Your task to perform on an android device: Show me some nice wallpapers for my laptop Image 0: 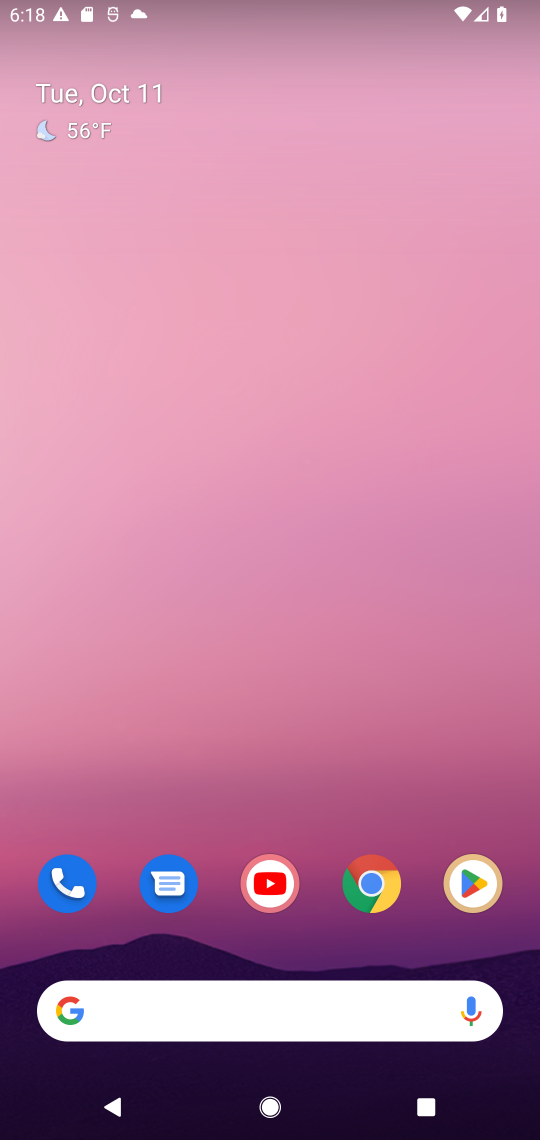
Step 0: drag from (329, 943) to (104, 30)
Your task to perform on an android device: Show me some nice wallpapers for my laptop Image 1: 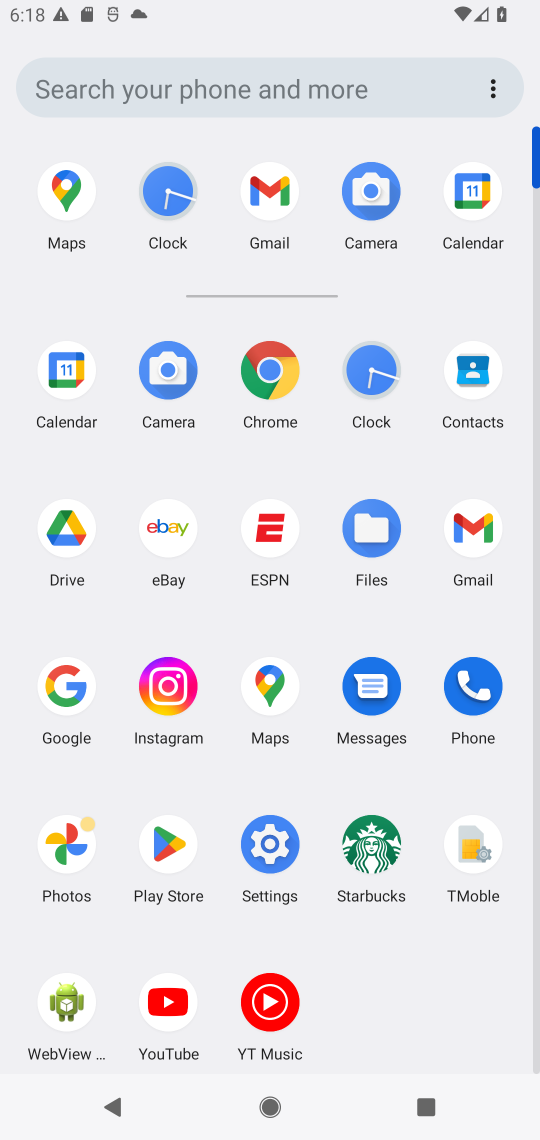
Step 1: click (266, 378)
Your task to perform on an android device: Show me some nice wallpapers for my laptop Image 2: 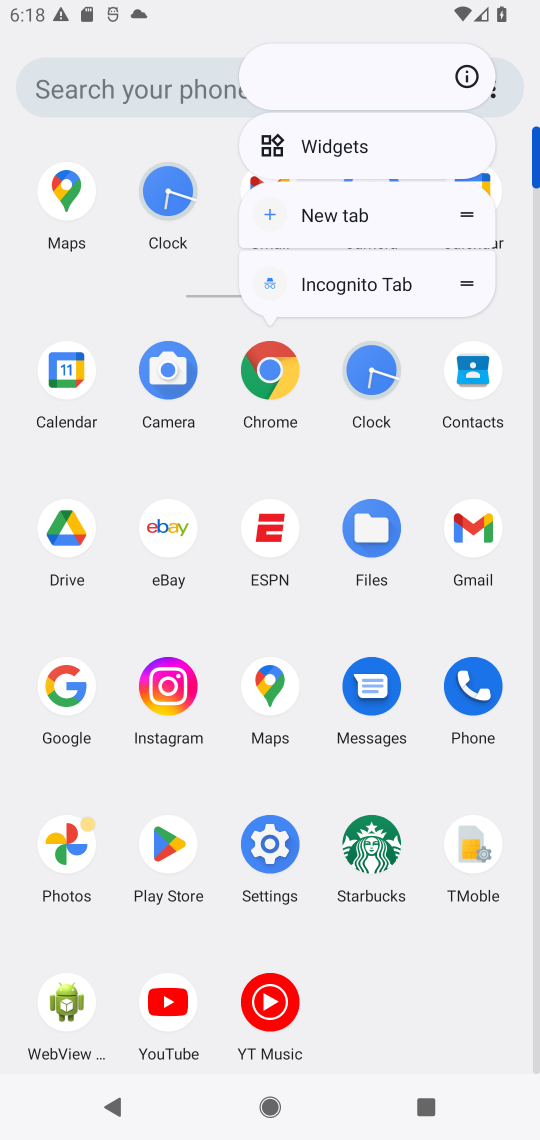
Step 2: click (266, 378)
Your task to perform on an android device: Show me some nice wallpapers for my laptop Image 3: 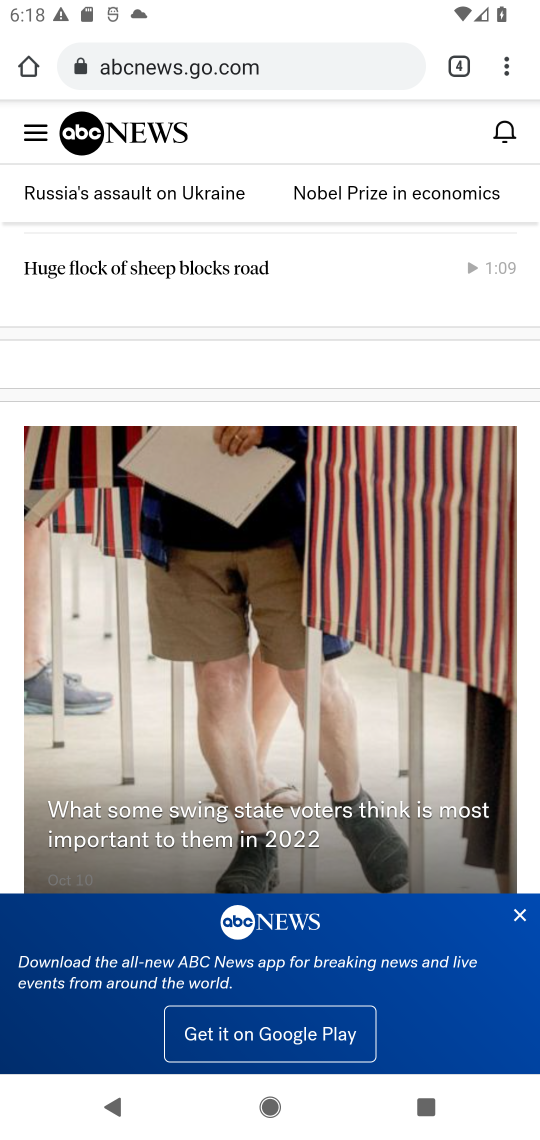
Step 3: click (245, 54)
Your task to perform on an android device: Show me some nice wallpapers for my laptop Image 4: 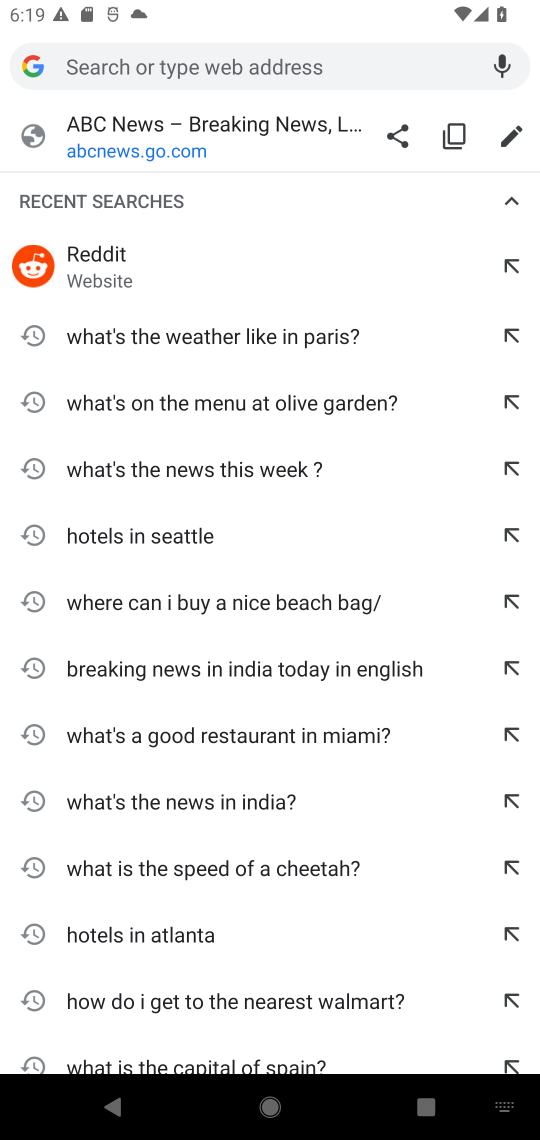
Step 4: type "Show me some nice wallpapers for my laptop"
Your task to perform on an android device: Show me some nice wallpapers for my laptop Image 5: 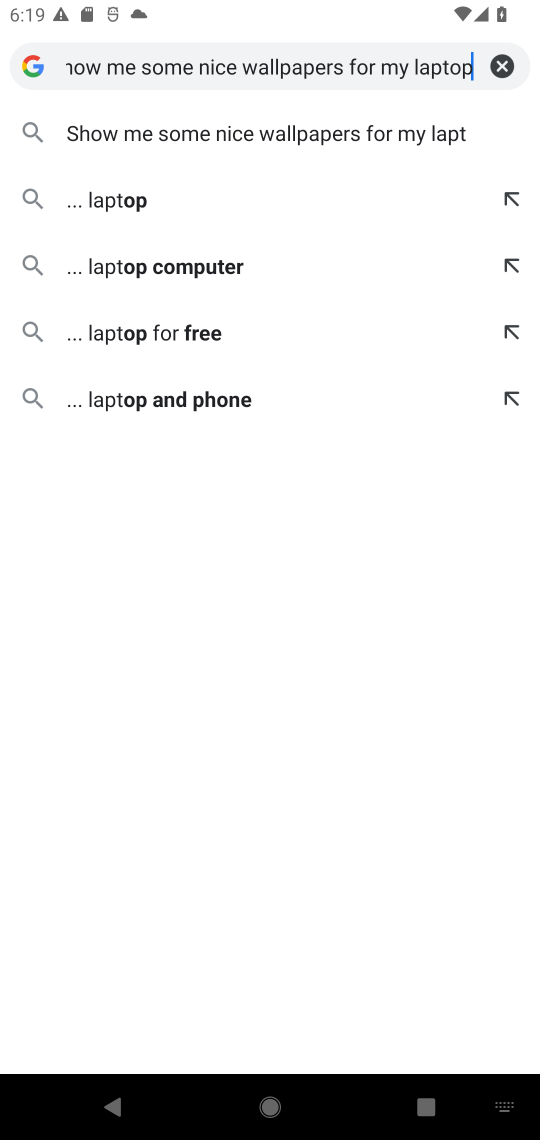
Step 5: press enter
Your task to perform on an android device: Show me some nice wallpapers for my laptop Image 6: 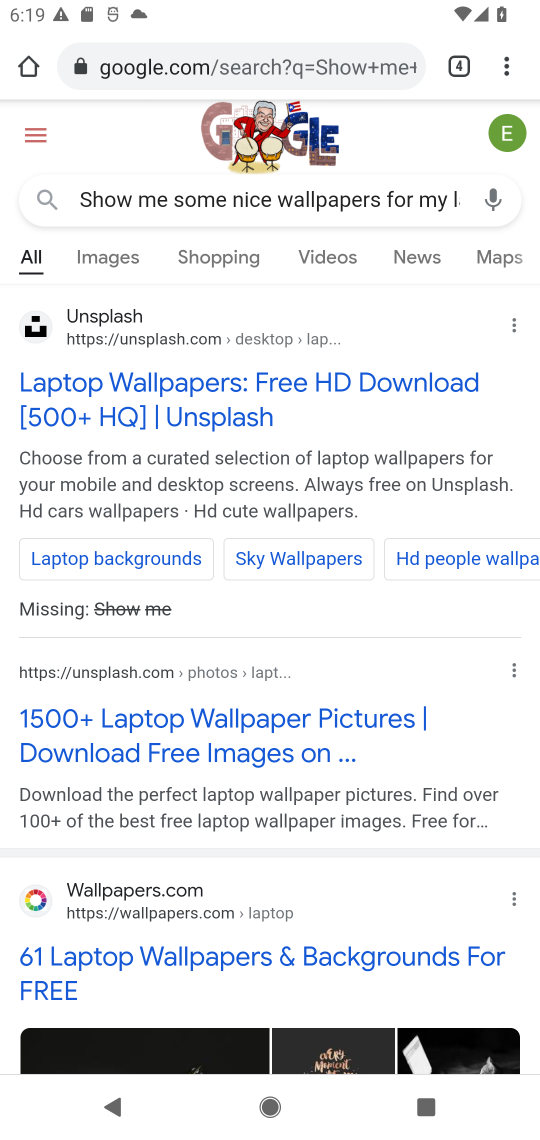
Step 6: task complete